Your task to perform on an android device: Search for pizza restaurants on Maps Image 0: 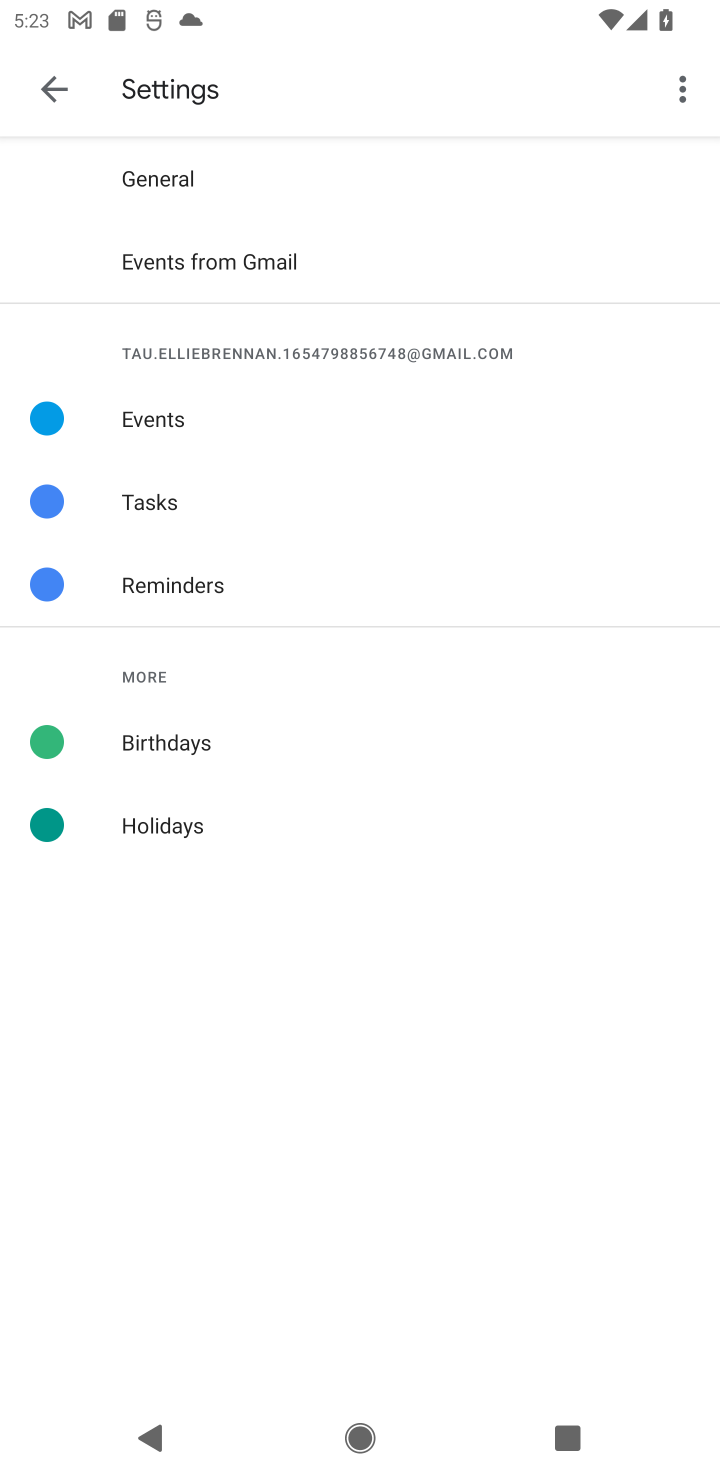
Step 0: press home button
Your task to perform on an android device: Search for pizza restaurants on Maps Image 1: 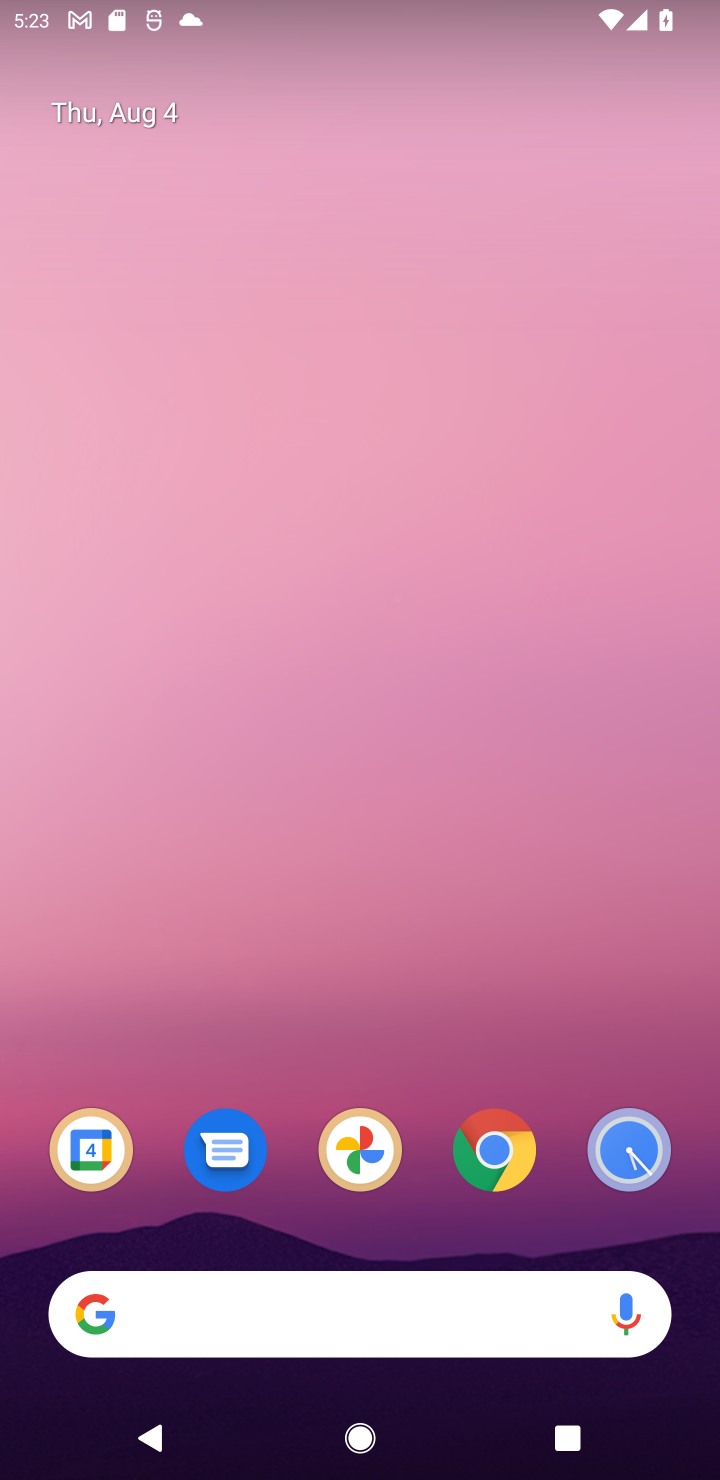
Step 1: drag from (305, 1235) to (351, 26)
Your task to perform on an android device: Search for pizza restaurants on Maps Image 2: 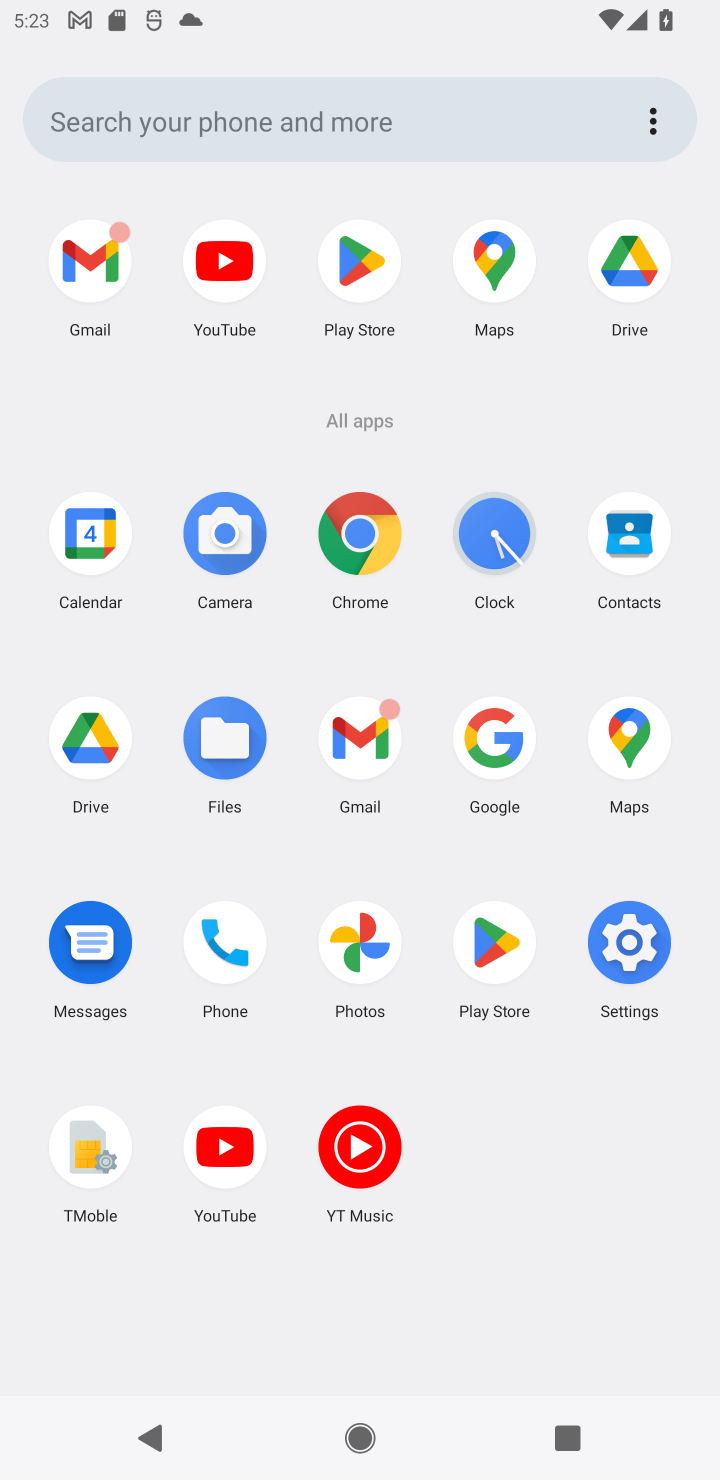
Step 2: click (622, 756)
Your task to perform on an android device: Search for pizza restaurants on Maps Image 3: 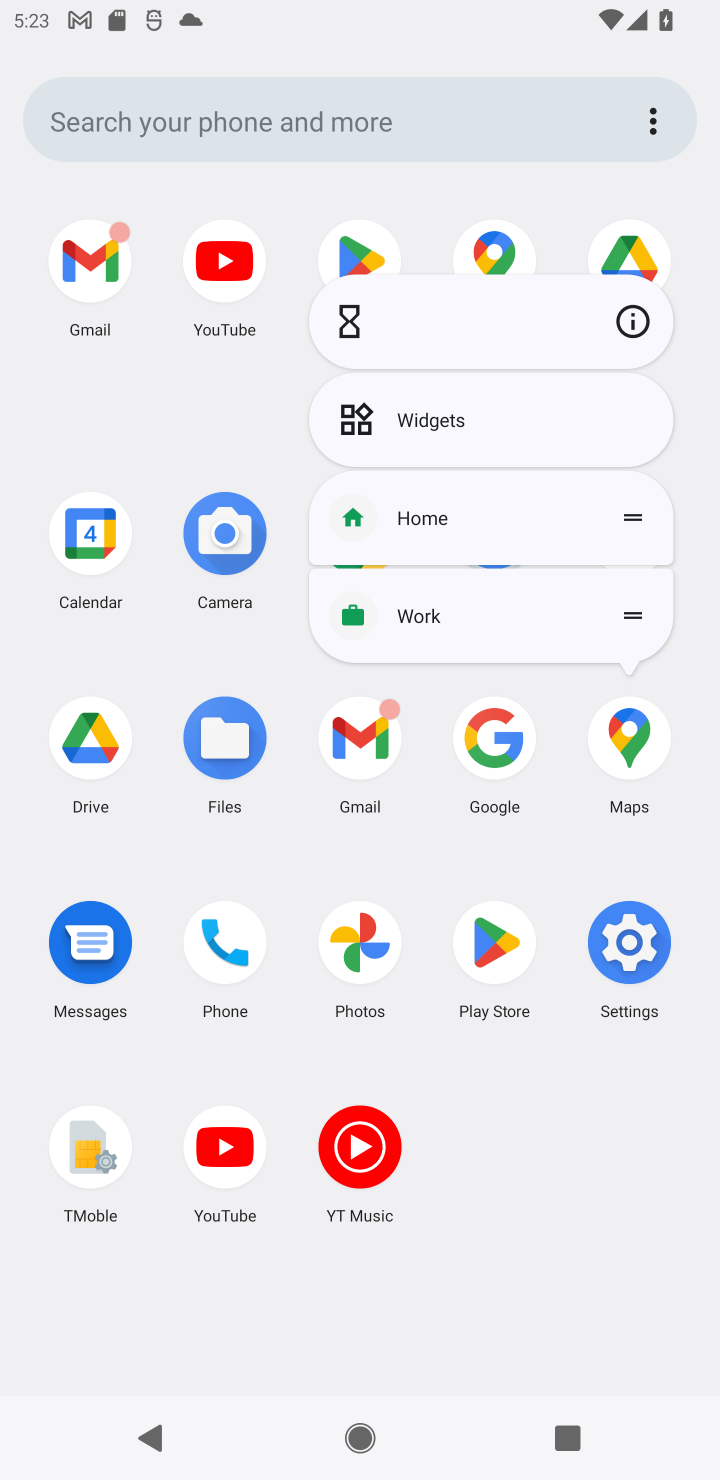
Step 3: click (653, 783)
Your task to perform on an android device: Search for pizza restaurants on Maps Image 4: 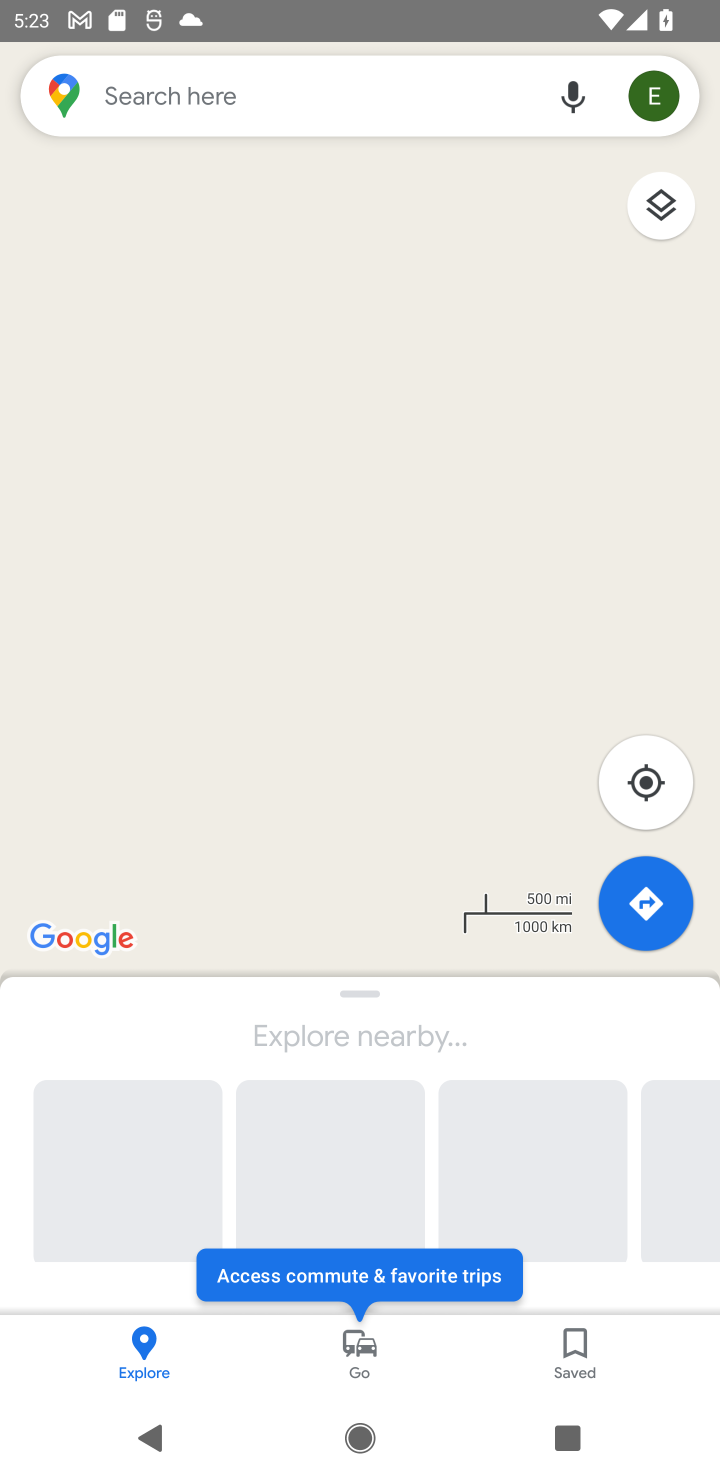
Step 4: click (272, 86)
Your task to perform on an android device: Search for pizza restaurants on Maps Image 5: 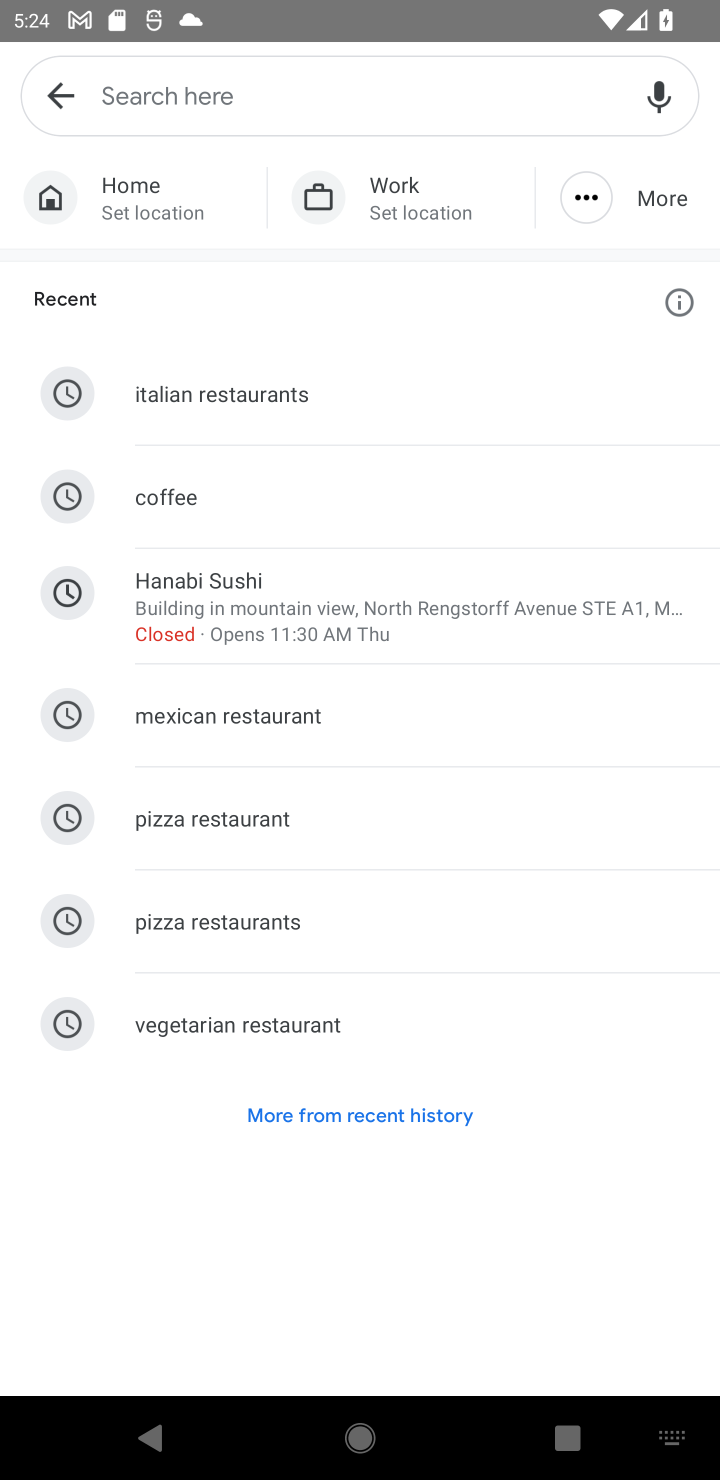
Step 5: type "Pizza restaurants"
Your task to perform on an android device: Search for pizza restaurants on Maps Image 6: 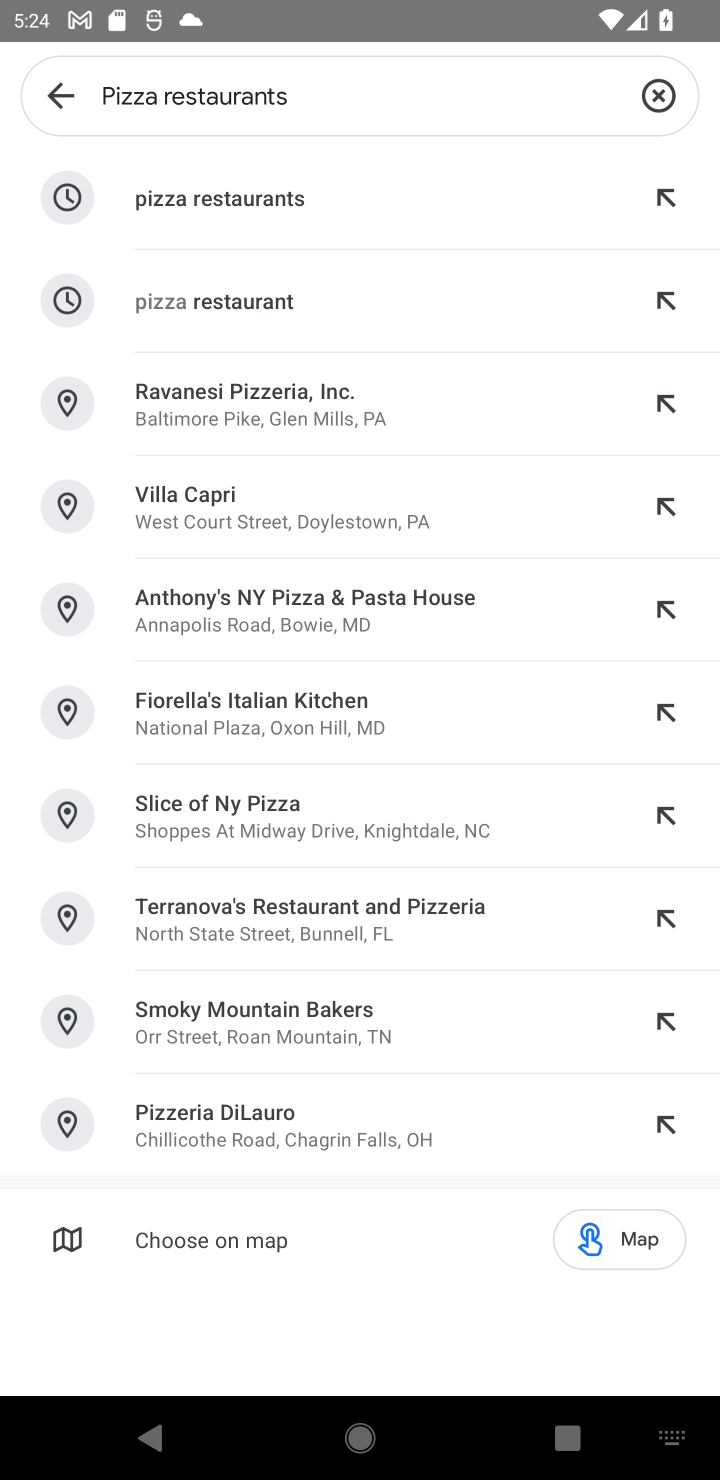
Step 6: click (201, 194)
Your task to perform on an android device: Search for pizza restaurants on Maps Image 7: 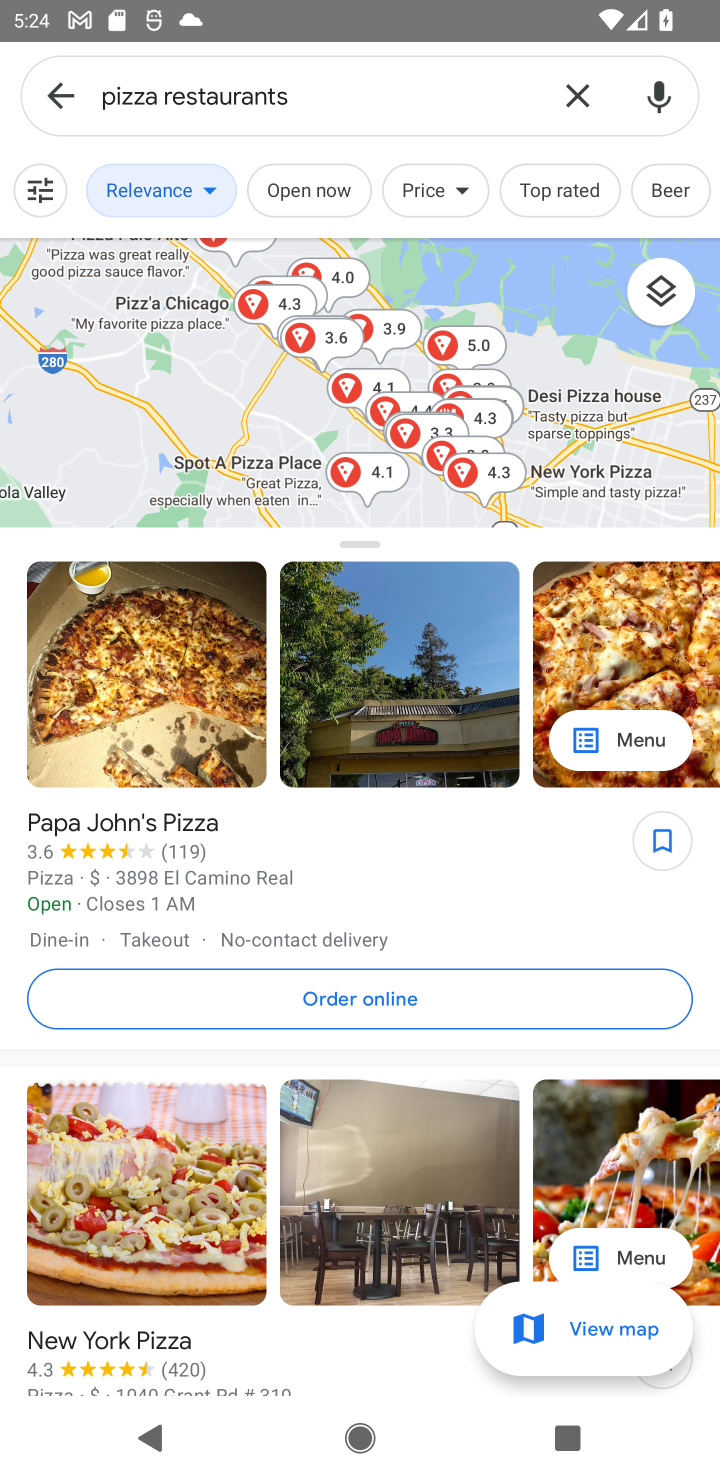
Step 7: task complete